Your task to perform on an android device: turn off notifications in google photos Image 0: 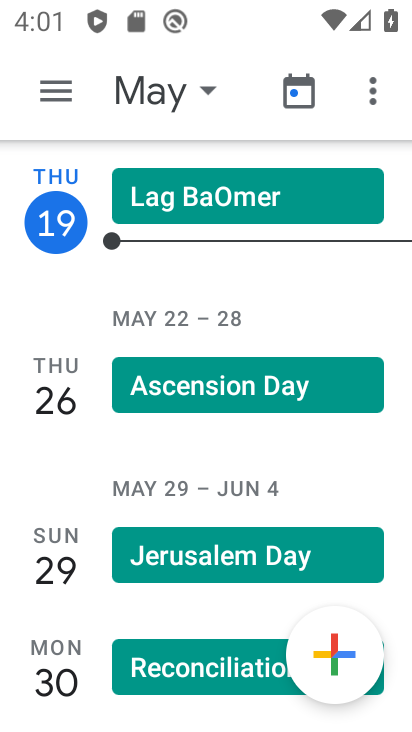
Step 0: press home button
Your task to perform on an android device: turn off notifications in google photos Image 1: 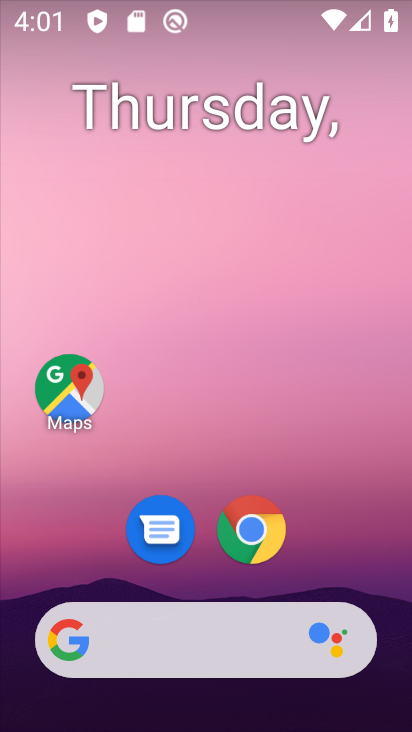
Step 1: drag from (217, 722) to (225, 51)
Your task to perform on an android device: turn off notifications in google photos Image 2: 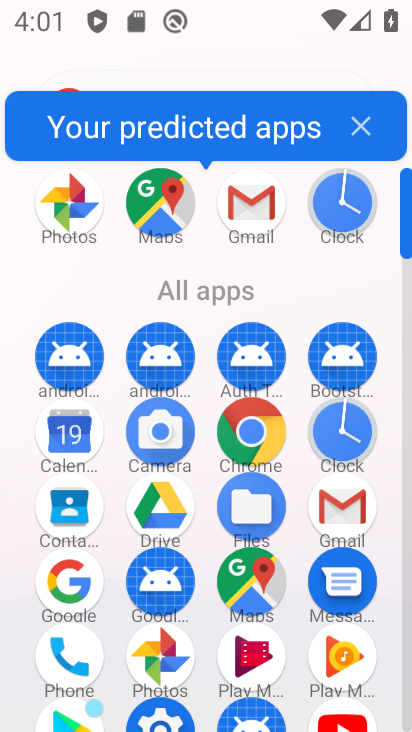
Step 2: click (67, 215)
Your task to perform on an android device: turn off notifications in google photos Image 3: 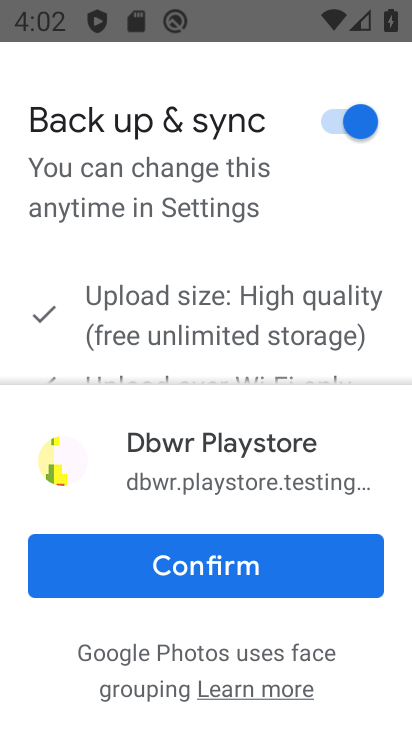
Step 3: click (208, 565)
Your task to perform on an android device: turn off notifications in google photos Image 4: 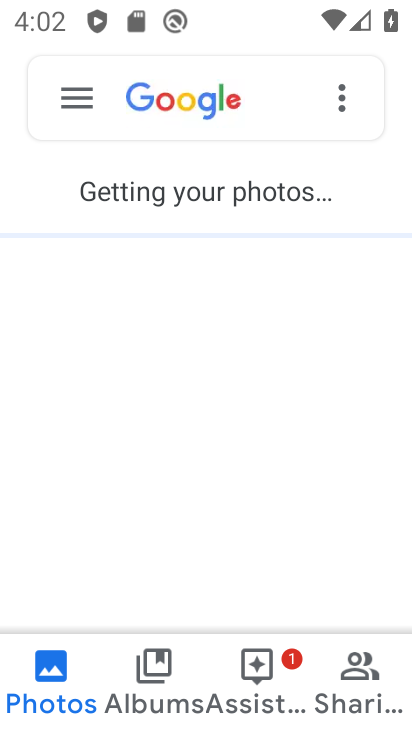
Step 4: click (79, 93)
Your task to perform on an android device: turn off notifications in google photos Image 5: 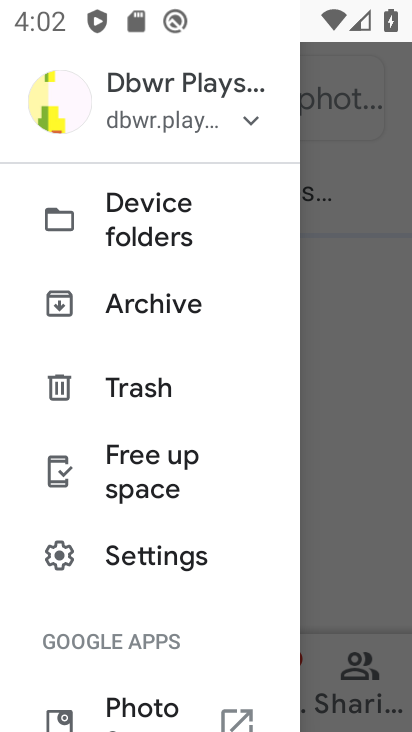
Step 5: click (145, 555)
Your task to perform on an android device: turn off notifications in google photos Image 6: 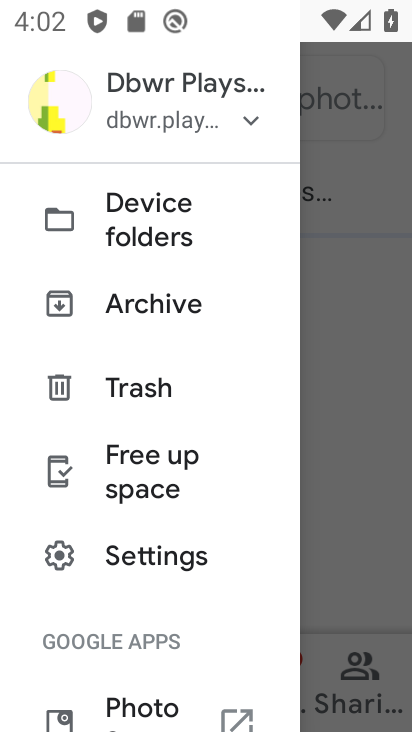
Step 6: click (154, 559)
Your task to perform on an android device: turn off notifications in google photos Image 7: 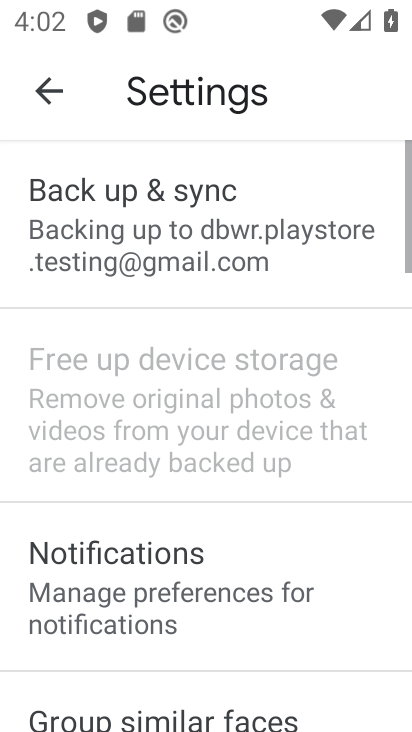
Step 7: click (132, 590)
Your task to perform on an android device: turn off notifications in google photos Image 8: 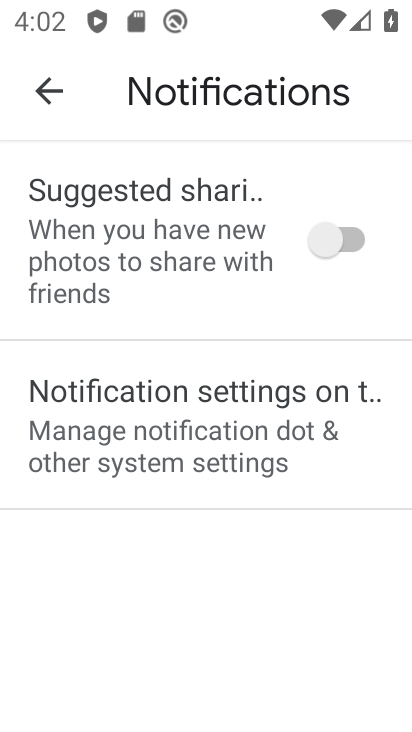
Step 8: click (146, 414)
Your task to perform on an android device: turn off notifications in google photos Image 9: 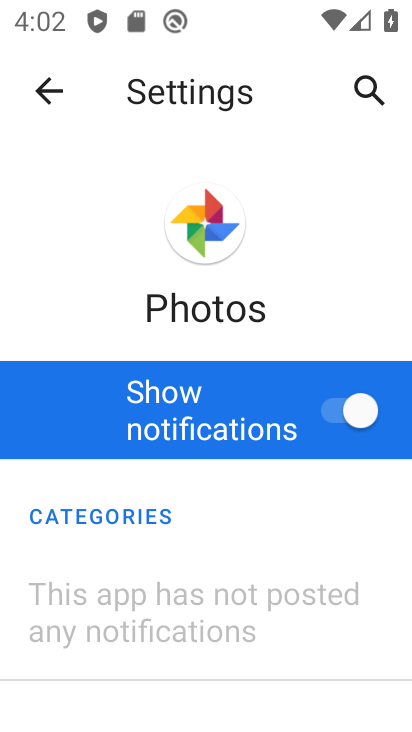
Step 9: click (325, 411)
Your task to perform on an android device: turn off notifications in google photos Image 10: 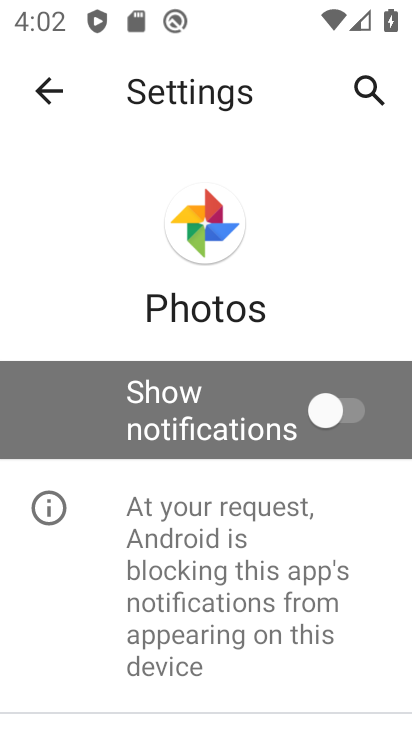
Step 10: task complete